Your task to perform on an android device: uninstall "Life360: Find Family & Friends" Image 0: 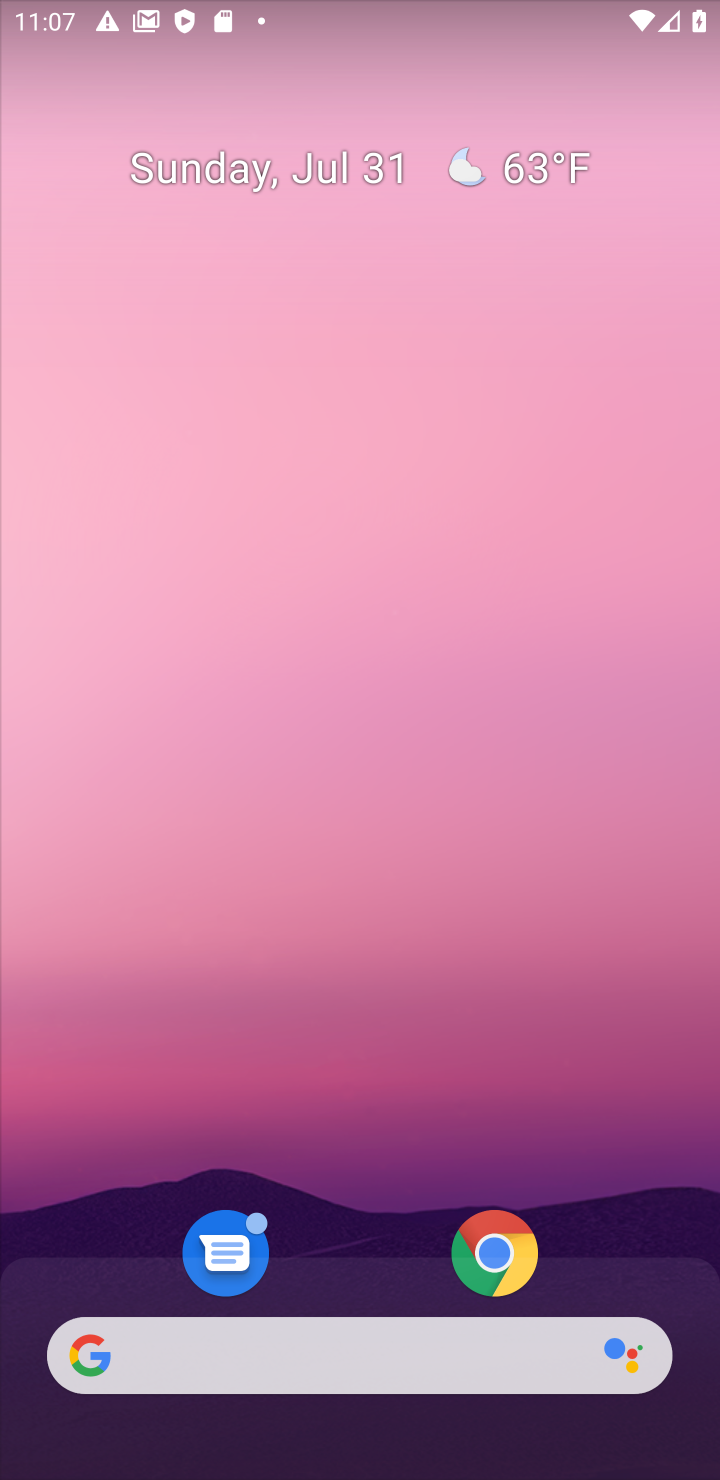
Step 0: drag from (359, 1156) to (276, 131)
Your task to perform on an android device: uninstall "Life360: Find Family & Friends" Image 1: 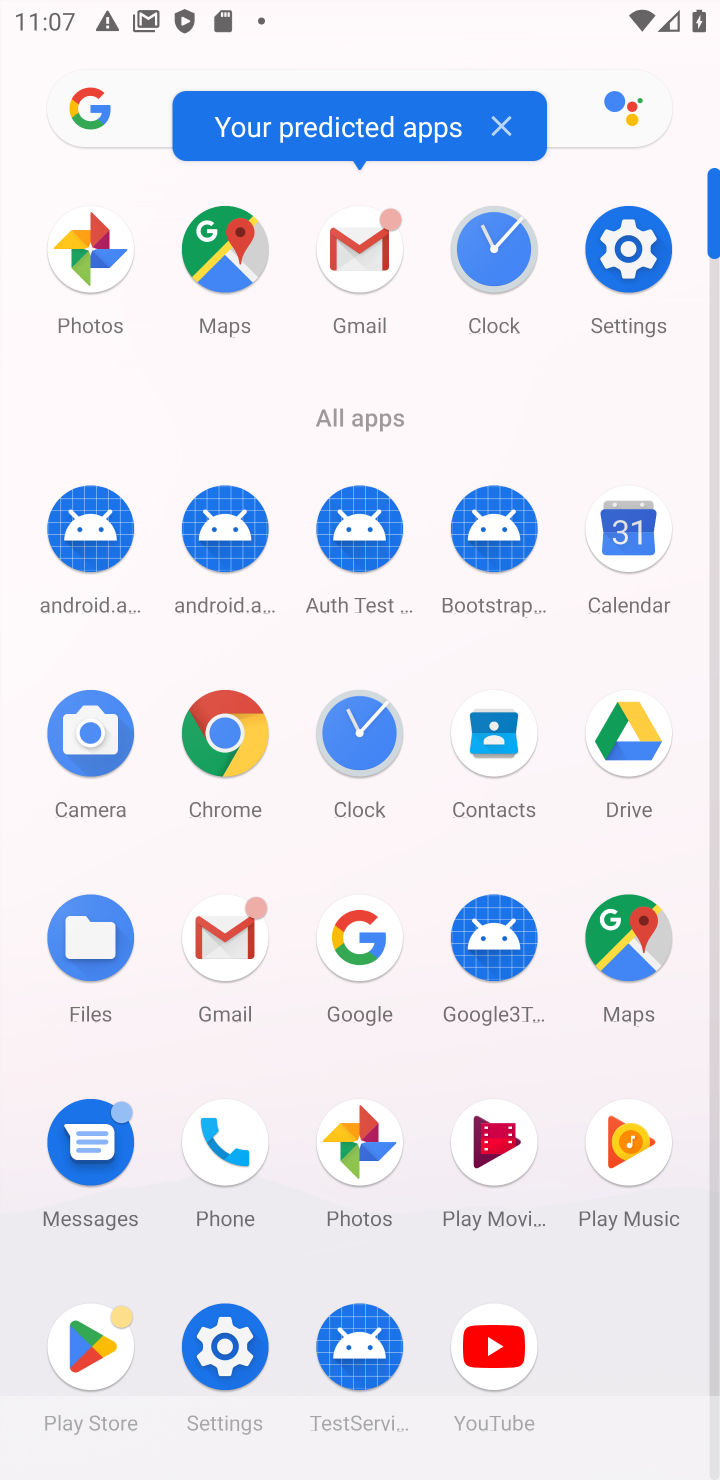
Step 1: click (95, 1353)
Your task to perform on an android device: uninstall "Life360: Find Family & Friends" Image 2: 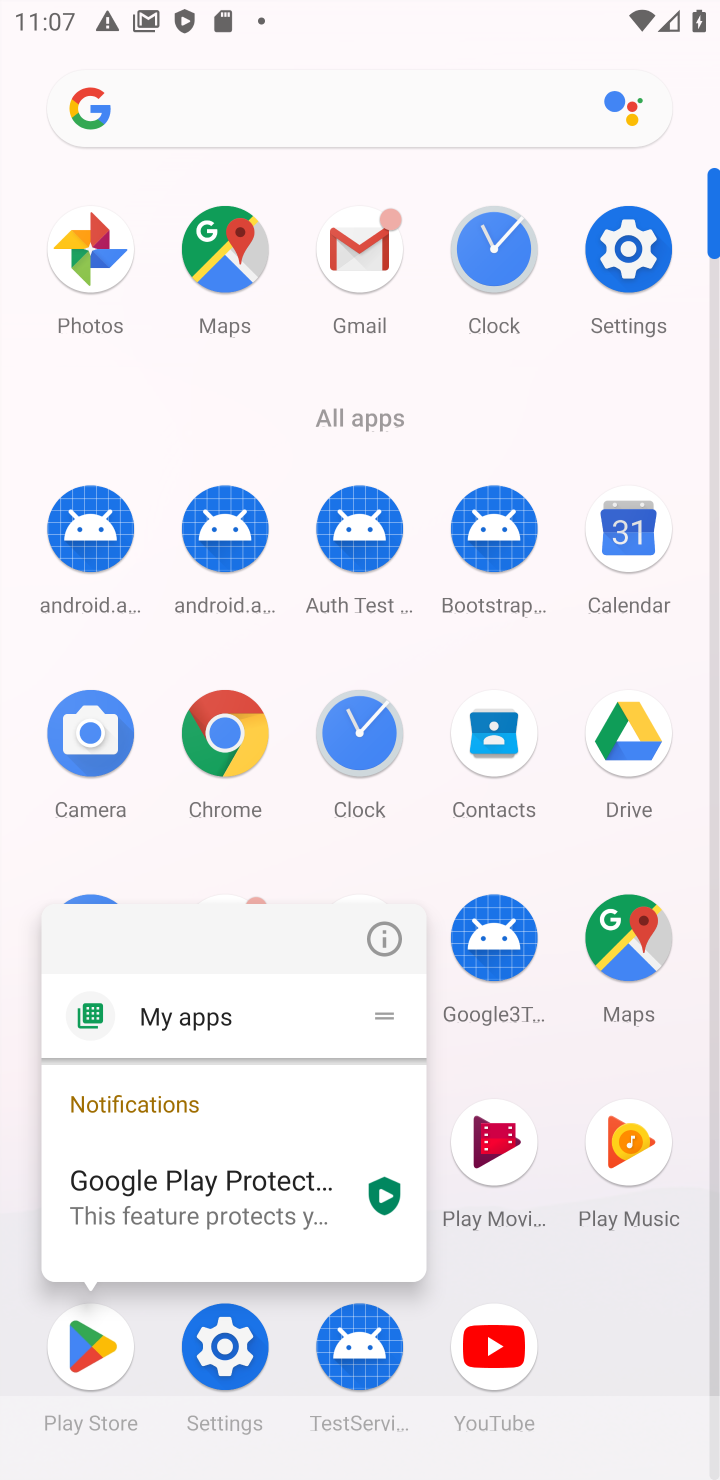
Step 2: click (56, 1365)
Your task to perform on an android device: uninstall "Life360: Find Family & Friends" Image 3: 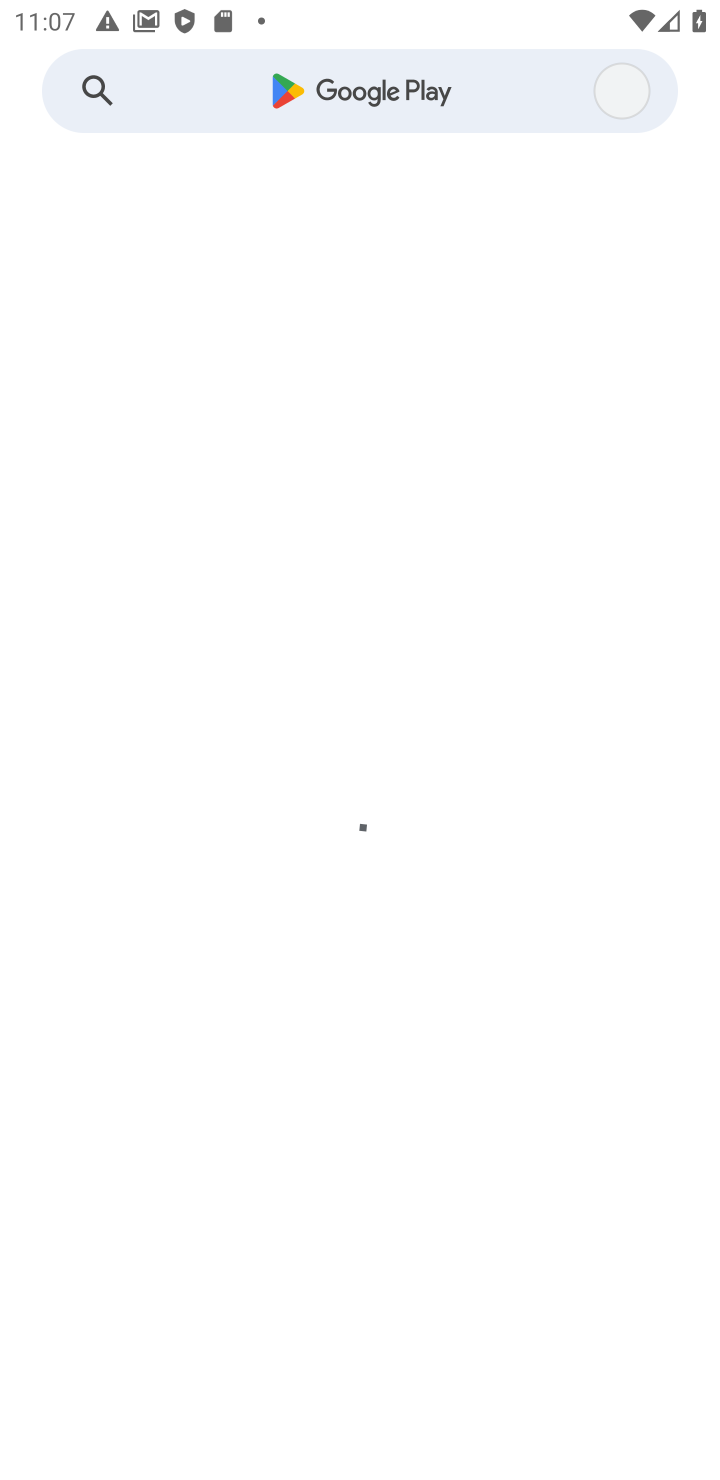
Step 3: click (336, 84)
Your task to perform on an android device: uninstall "Life360: Find Family & Friends" Image 4: 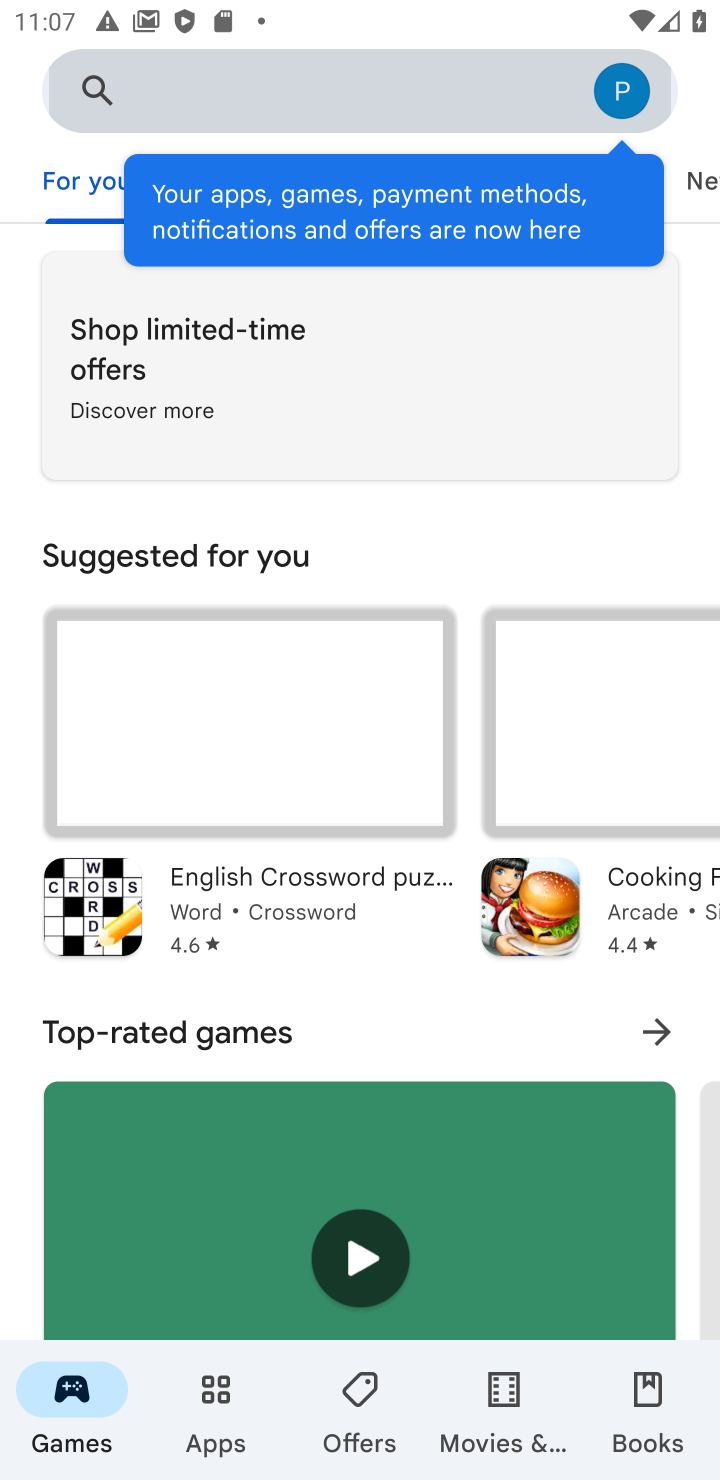
Step 4: click (435, 88)
Your task to perform on an android device: uninstall "Life360: Find Family & Friends" Image 5: 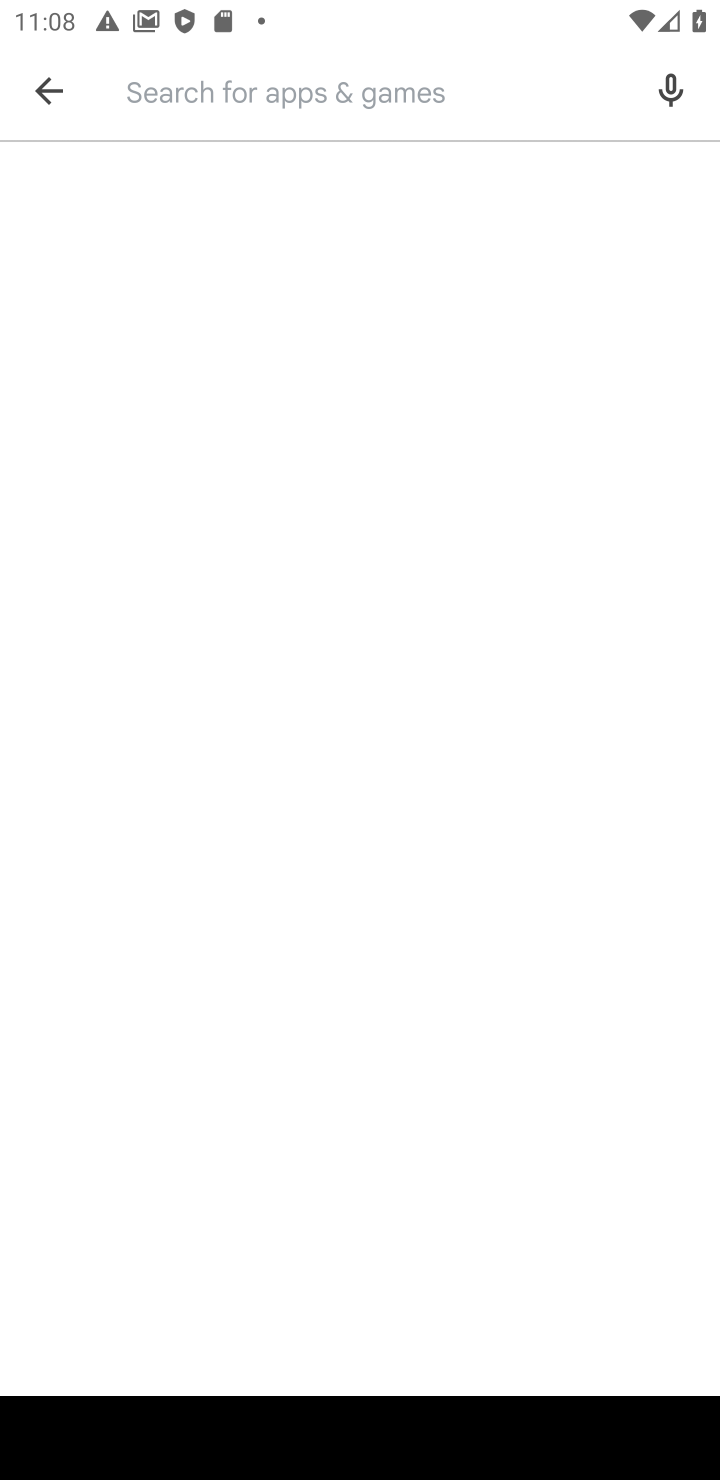
Step 5: type "Life360: Find Family & Friends"
Your task to perform on an android device: uninstall "Life360: Find Family & Friends" Image 6: 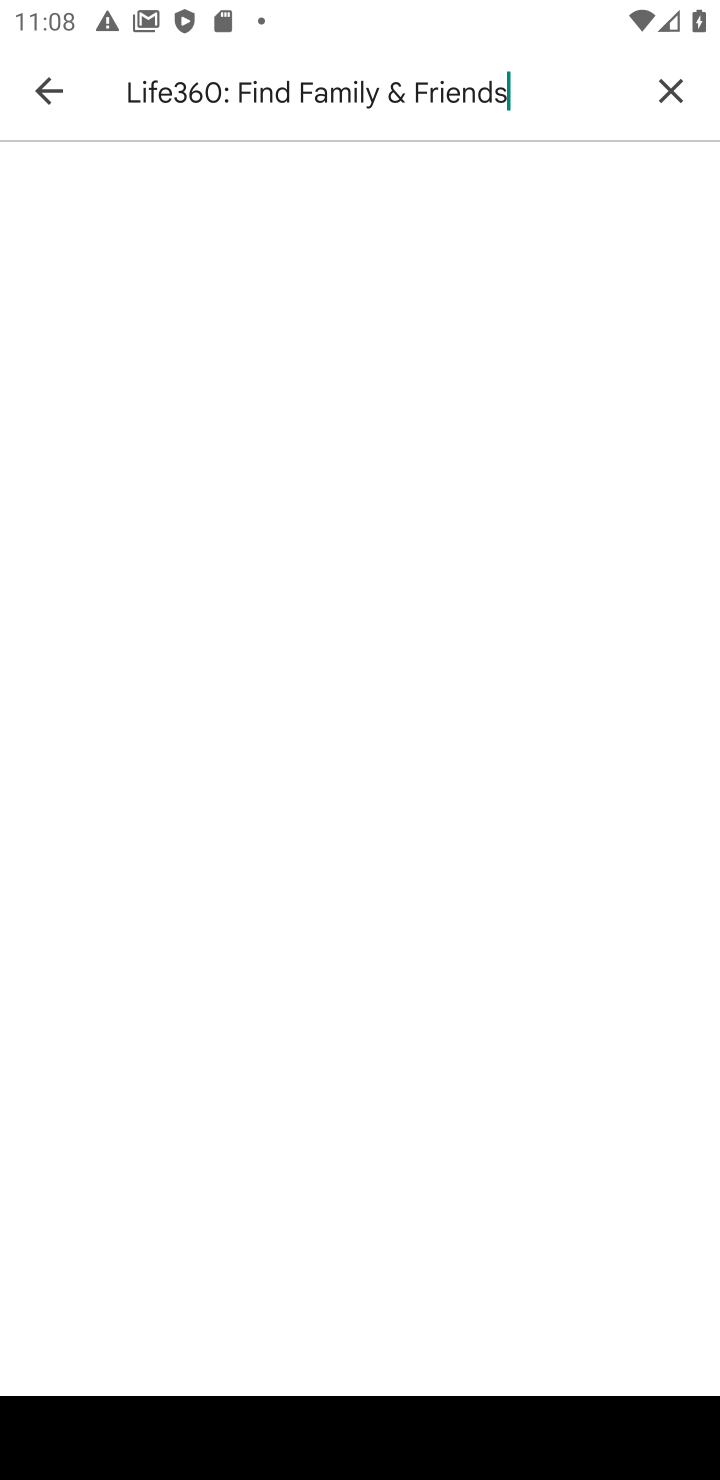
Step 6: press enter
Your task to perform on an android device: uninstall "Life360: Find Family & Friends" Image 7: 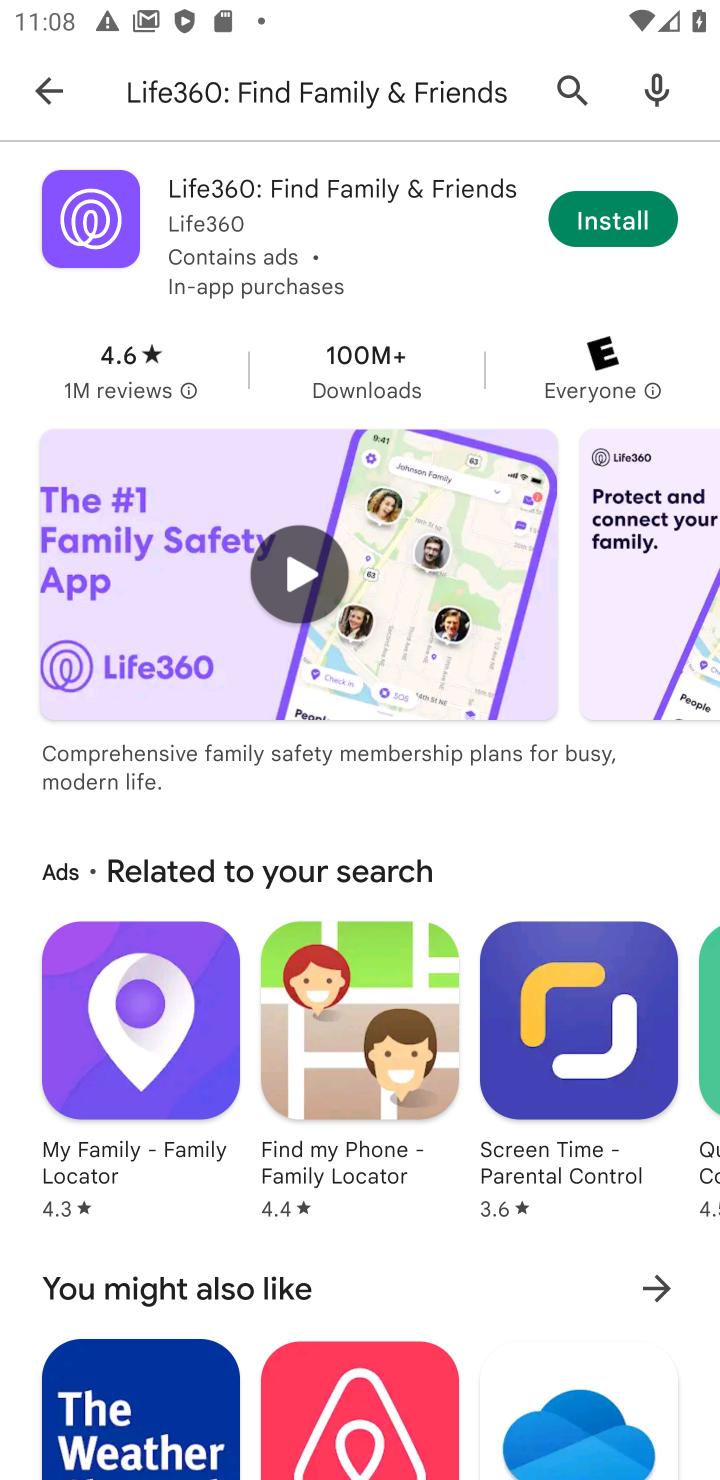
Step 7: task complete